Your task to perform on an android device: change the clock style Image 0: 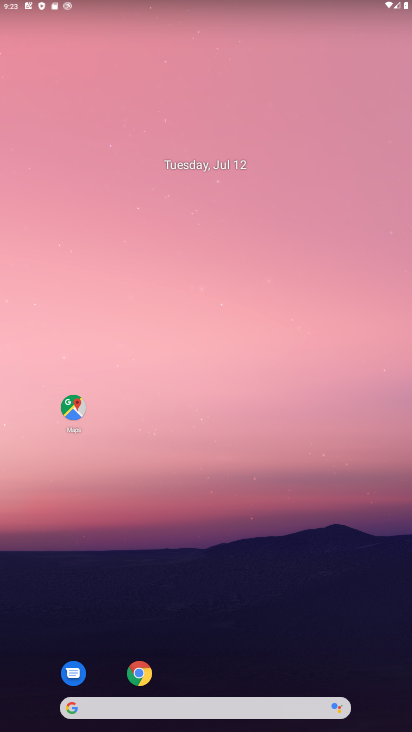
Step 0: drag from (176, 656) to (175, 171)
Your task to perform on an android device: change the clock style Image 1: 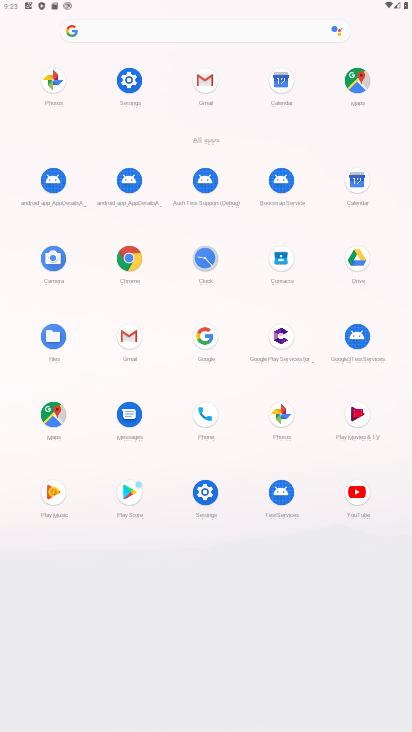
Step 1: click (209, 252)
Your task to perform on an android device: change the clock style Image 2: 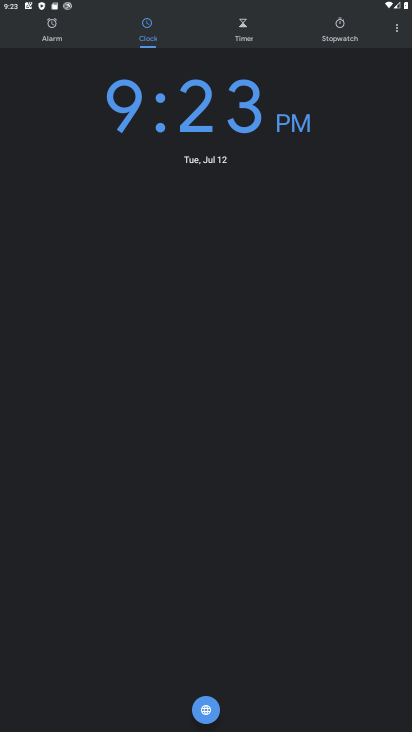
Step 2: click (400, 29)
Your task to perform on an android device: change the clock style Image 3: 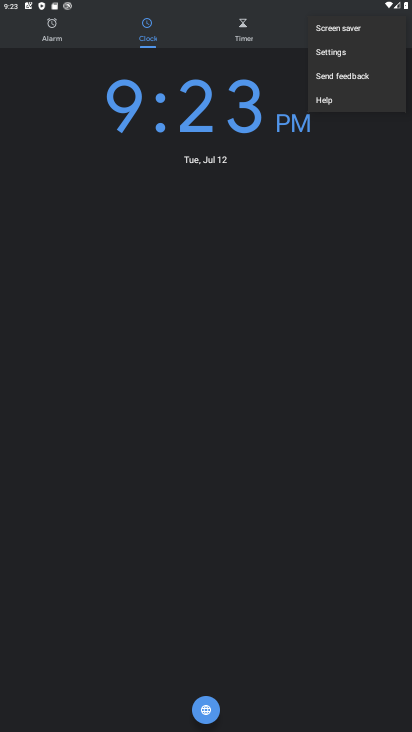
Step 3: click (356, 60)
Your task to perform on an android device: change the clock style Image 4: 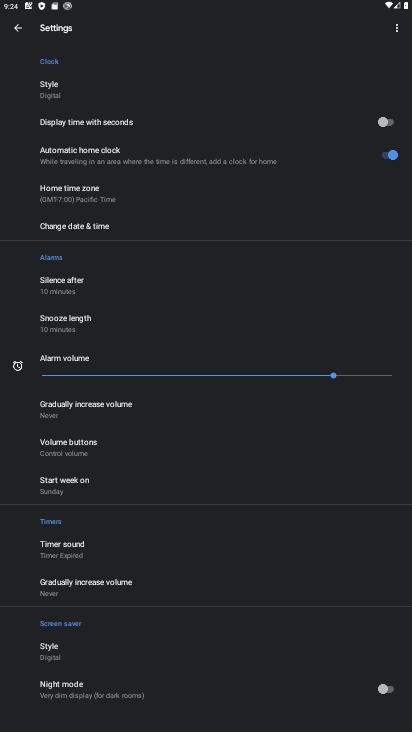
Step 4: click (44, 85)
Your task to perform on an android device: change the clock style Image 5: 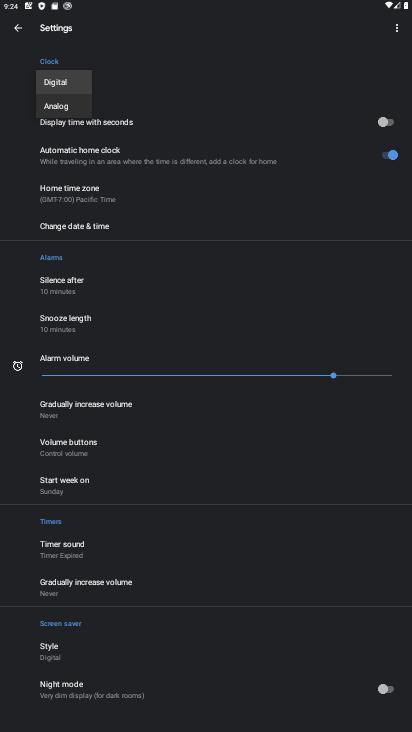
Step 5: click (50, 110)
Your task to perform on an android device: change the clock style Image 6: 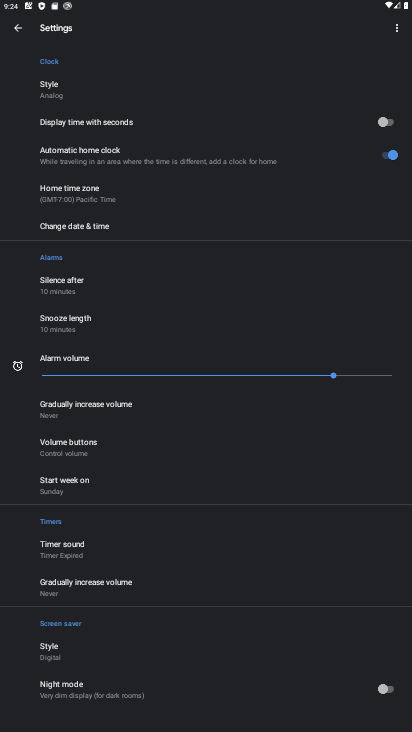
Step 6: task complete